Your task to perform on an android device: open the mobile data screen to see how much data has been used Image 0: 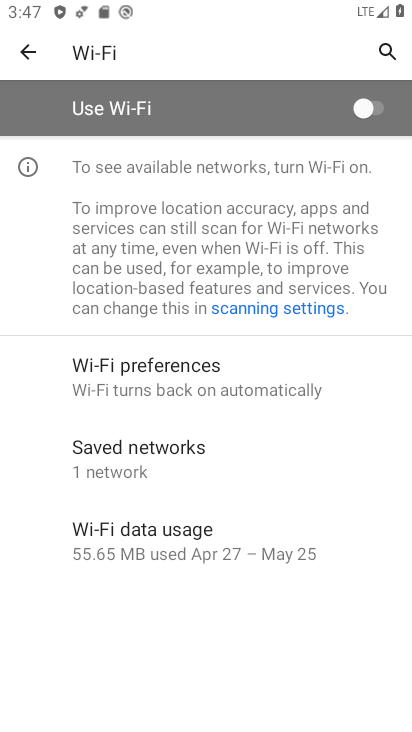
Step 0: press home button
Your task to perform on an android device: open the mobile data screen to see how much data has been used Image 1: 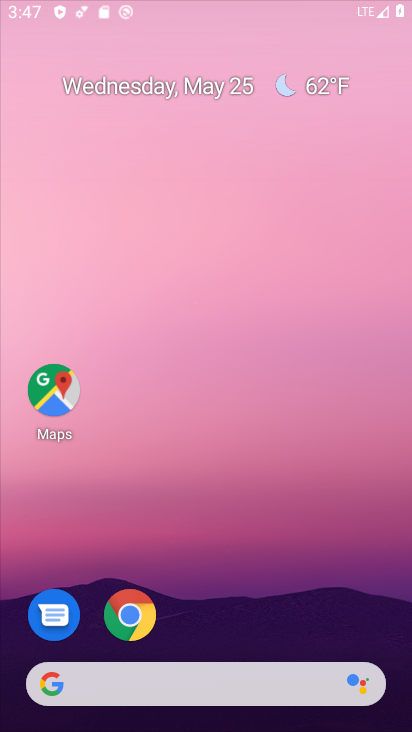
Step 1: drag from (316, 380) to (234, 8)
Your task to perform on an android device: open the mobile data screen to see how much data has been used Image 2: 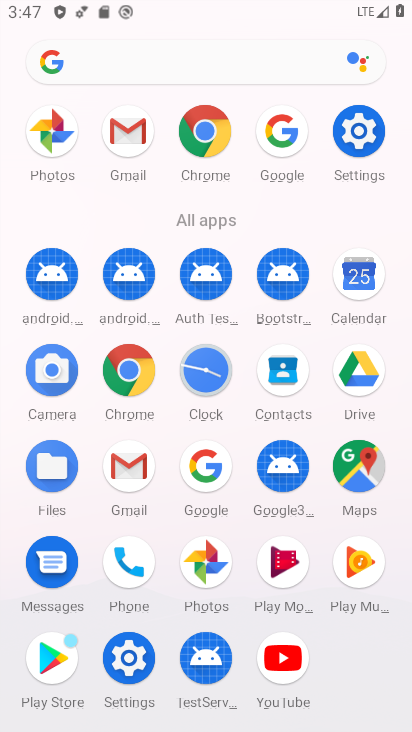
Step 2: click (356, 141)
Your task to perform on an android device: open the mobile data screen to see how much data has been used Image 3: 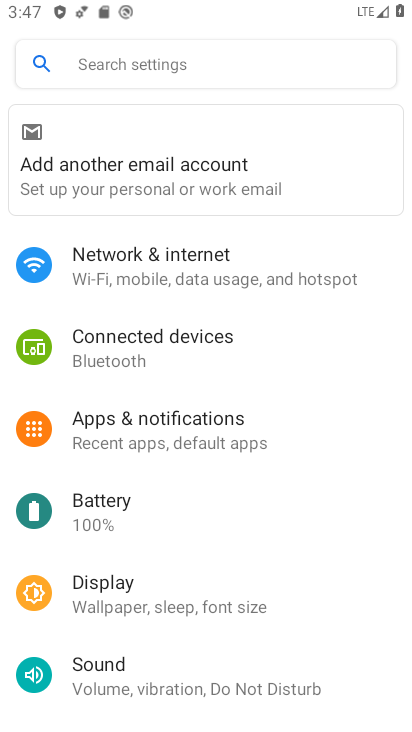
Step 3: click (217, 275)
Your task to perform on an android device: open the mobile data screen to see how much data has been used Image 4: 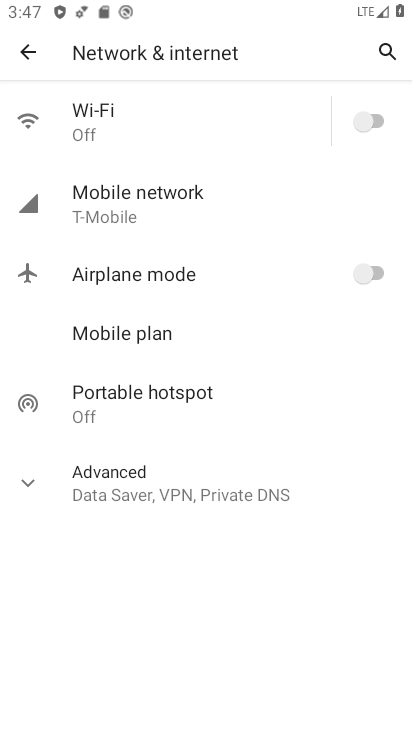
Step 4: click (218, 215)
Your task to perform on an android device: open the mobile data screen to see how much data has been used Image 5: 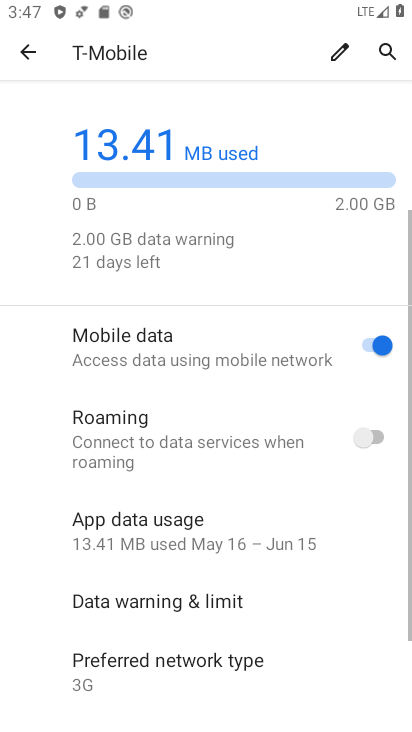
Step 5: task complete